Your task to perform on an android device: Open Google Maps and go to "Timeline" Image 0: 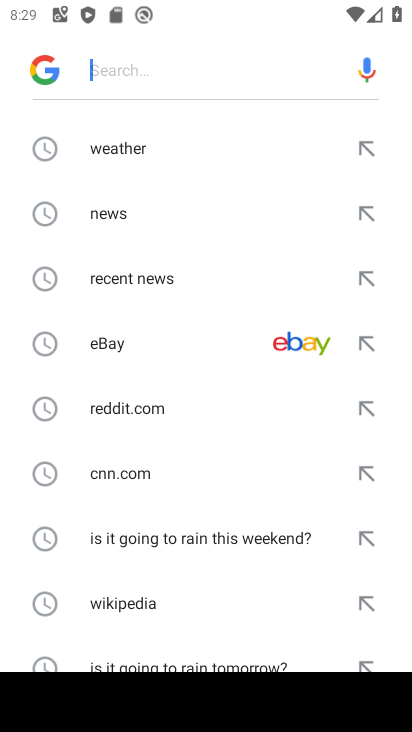
Step 0: press home button
Your task to perform on an android device: Open Google Maps and go to "Timeline" Image 1: 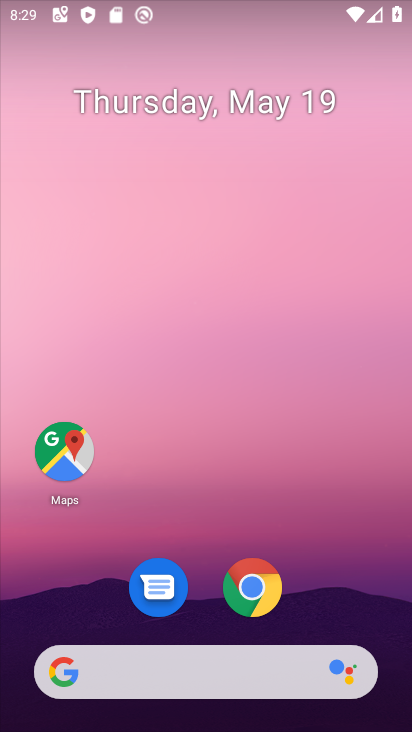
Step 1: drag from (319, 596) to (299, 57)
Your task to perform on an android device: Open Google Maps and go to "Timeline" Image 2: 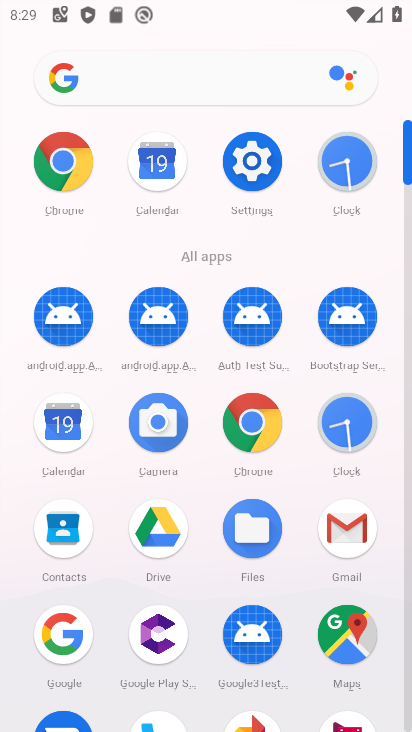
Step 2: click (349, 630)
Your task to perform on an android device: Open Google Maps and go to "Timeline" Image 3: 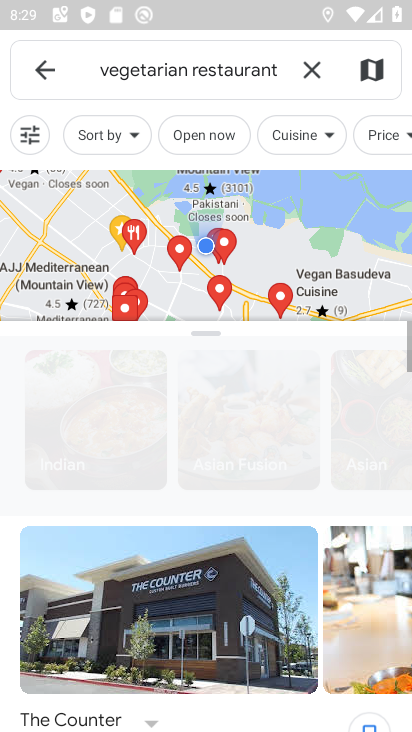
Step 3: click (44, 70)
Your task to perform on an android device: Open Google Maps and go to "Timeline" Image 4: 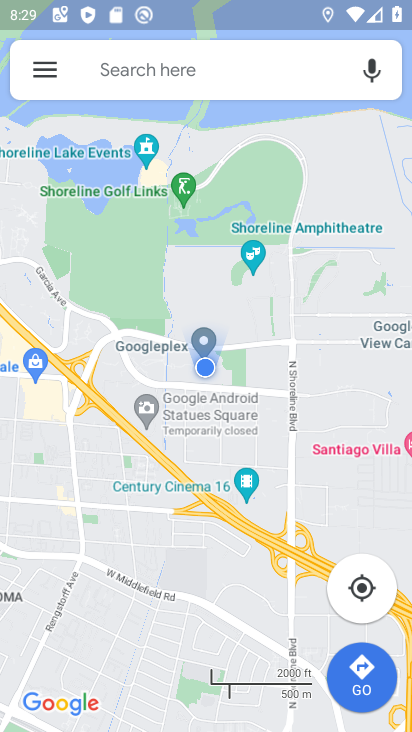
Step 4: click (40, 66)
Your task to perform on an android device: Open Google Maps and go to "Timeline" Image 5: 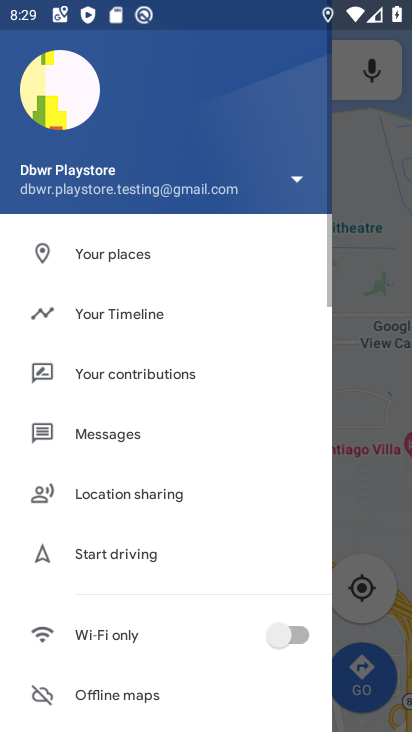
Step 5: click (113, 316)
Your task to perform on an android device: Open Google Maps and go to "Timeline" Image 6: 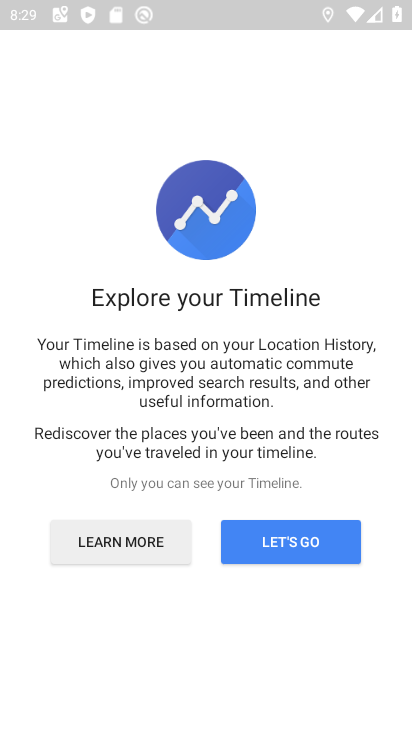
Step 6: click (314, 537)
Your task to perform on an android device: Open Google Maps and go to "Timeline" Image 7: 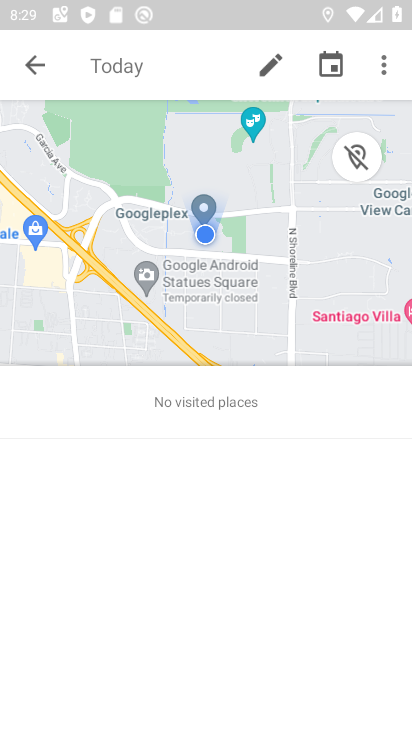
Step 7: task complete